Your task to perform on an android device: What is the news today? Image 0: 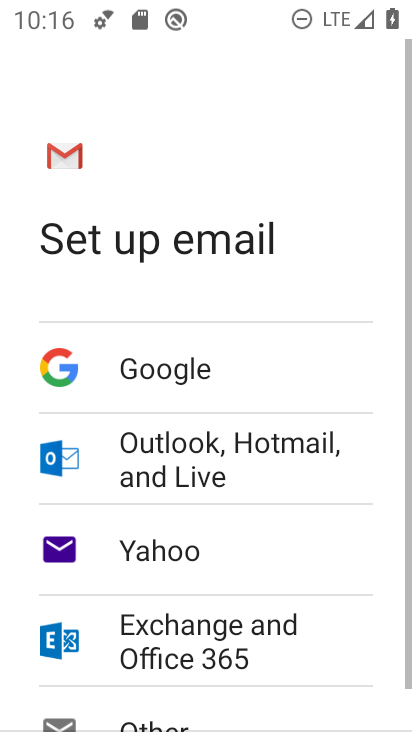
Step 0: press home button
Your task to perform on an android device: What is the news today? Image 1: 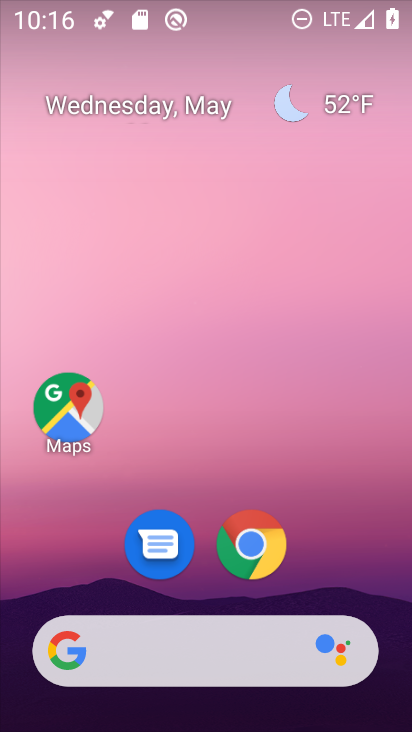
Step 1: click (192, 639)
Your task to perform on an android device: What is the news today? Image 2: 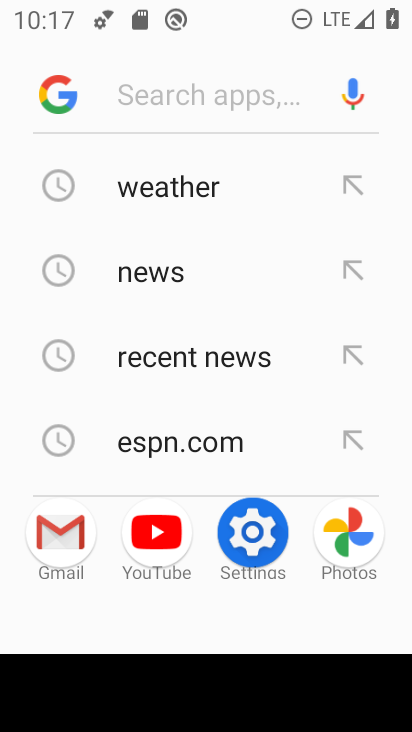
Step 2: click (28, 85)
Your task to perform on an android device: What is the news today? Image 3: 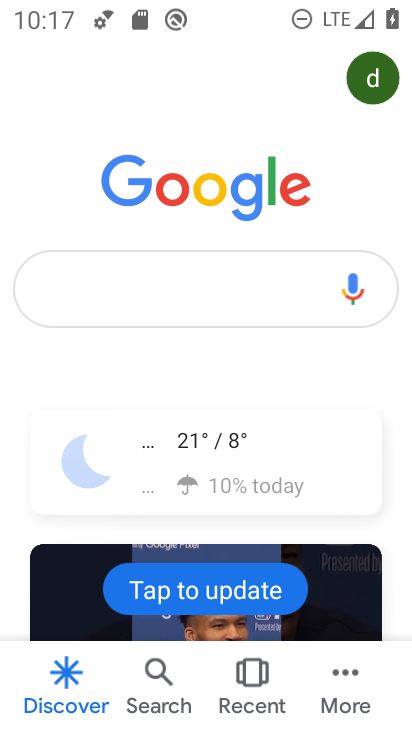
Step 3: task complete